Your task to perform on an android device: What's the weather going to be this weekend? Image 0: 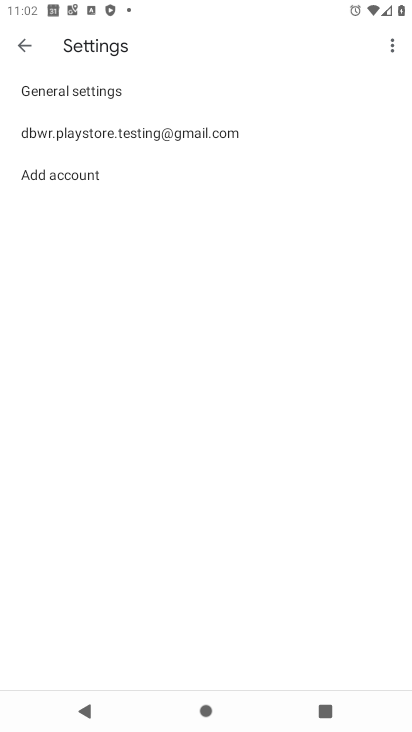
Step 0: press home button
Your task to perform on an android device: What's the weather going to be this weekend? Image 1: 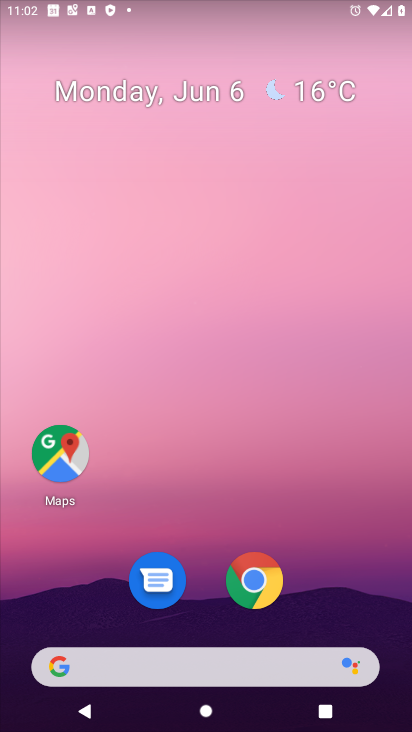
Step 1: drag from (323, 545) to (333, 25)
Your task to perform on an android device: What's the weather going to be this weekend? Image 2: 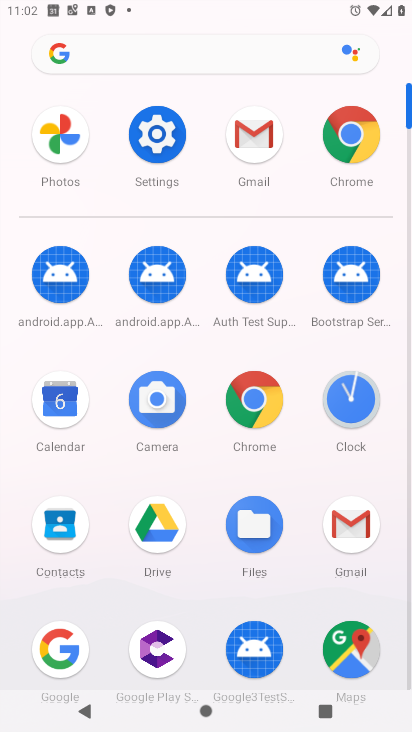
Step 2: click (52, 55)
Your task to perform on an android device: What's the weather going to be this weekend? Image 3: 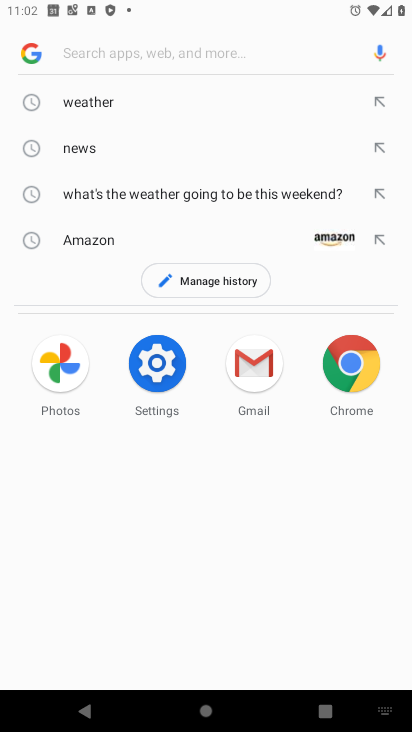
Step 3: click (31, 54)
Your task to perform on an android device: What's the weather going to be this weekend? Image 4: 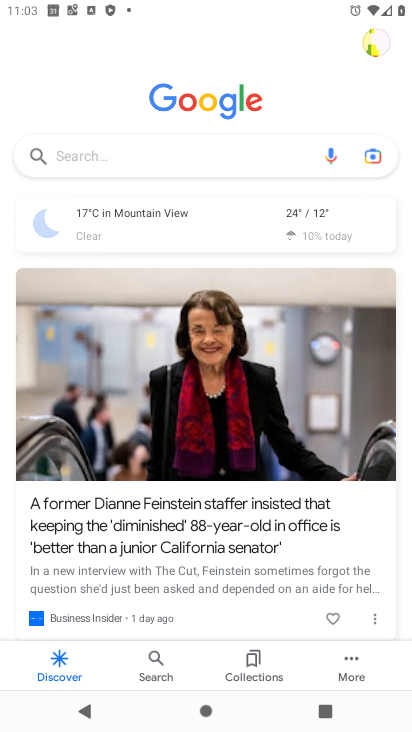
Step 4: click (139, 223)
Your task to perform on an android device: What's the weather going to be this weekend? Image 5: 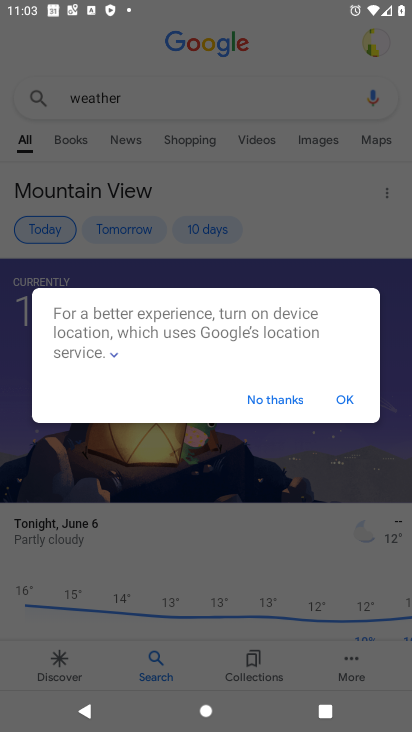
Step 5: task complete